Your task to perform on an android device: Search for vegetarian restaurants on Maps Image 0: 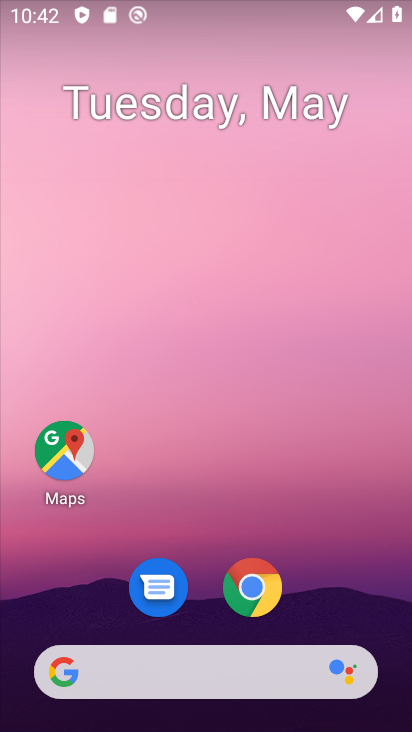
Step 0: drag from (357, 623) to (230, 37)
Your task to perform on an android device: Search for vegetarian restaurants on Maps Image 1: 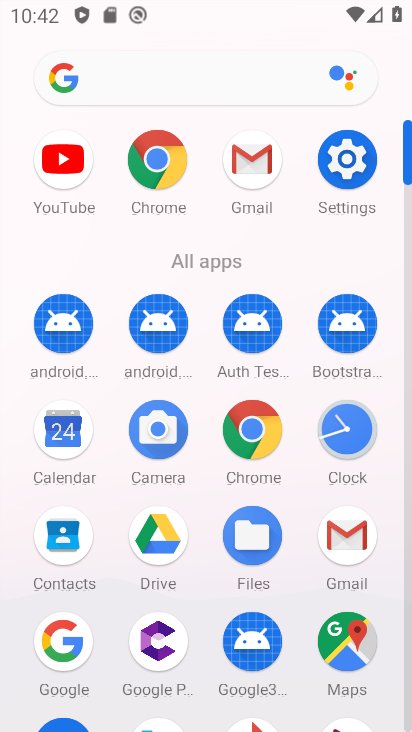
Step 1: drag from (25, 597) to (12, 258)
Your task to perform on an android device: Search for vegetarian restaurants on Maps Image 2: 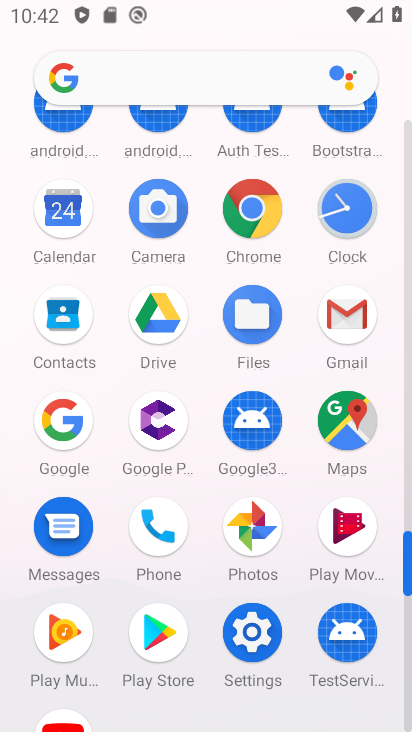
Step 2: click (341, 414)
Your task to perform on an android device: Search for vegetarian restaurants on Maps Image 3: 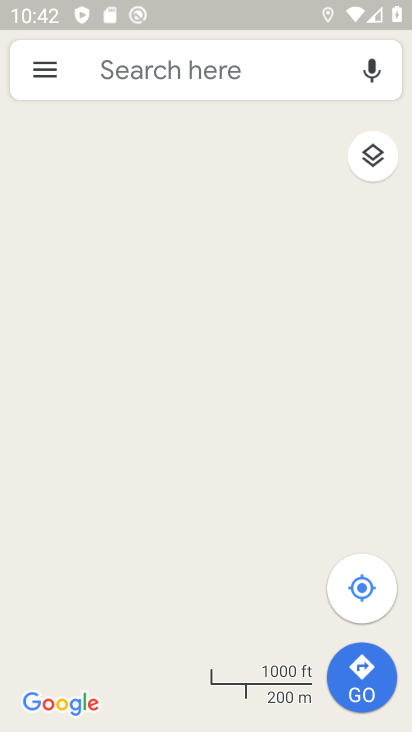
Step 3: click (250, 71)
Your task to perform on an android device: Search for vegetarian restaurants on Maps Image 4: 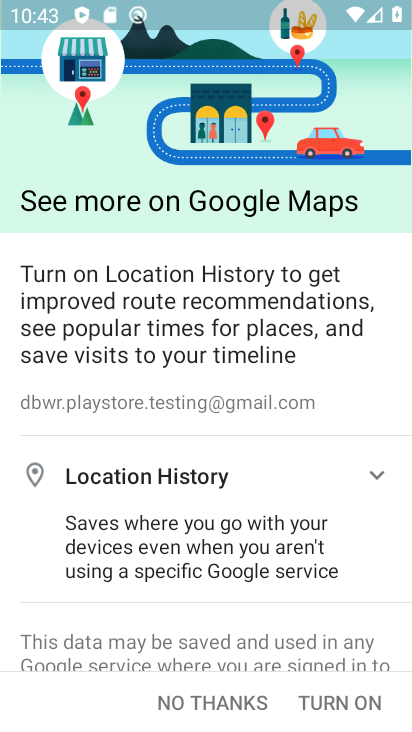
Step 4: click (338, 702)
Your task to perform on an android device: Search for vegetarian restaurants on Maps Image 5: 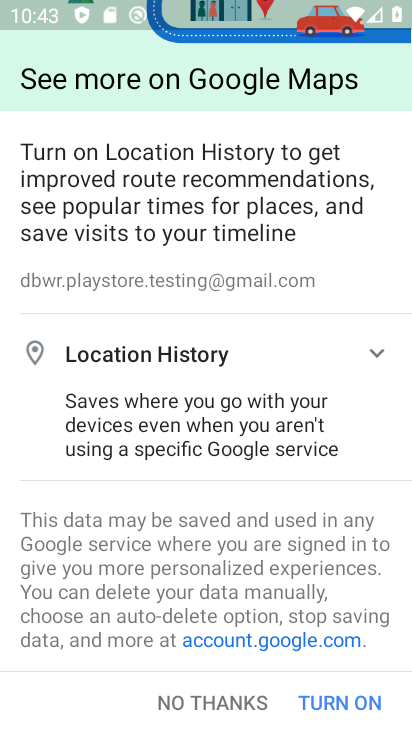
Step 5: click (338, 702)
Your task to perform on an android device: Search for vegetarian restaurants on Maps Image 6: 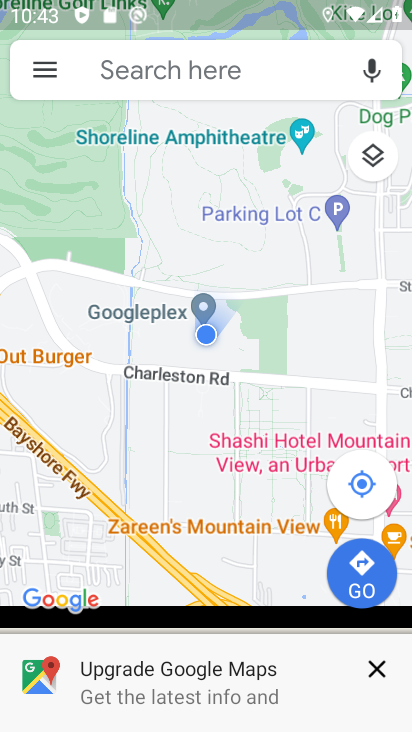
Step 6: click (255, 65)
Your task to perform on an android device: Search for vegetarian restaurants on Maps Image 7: 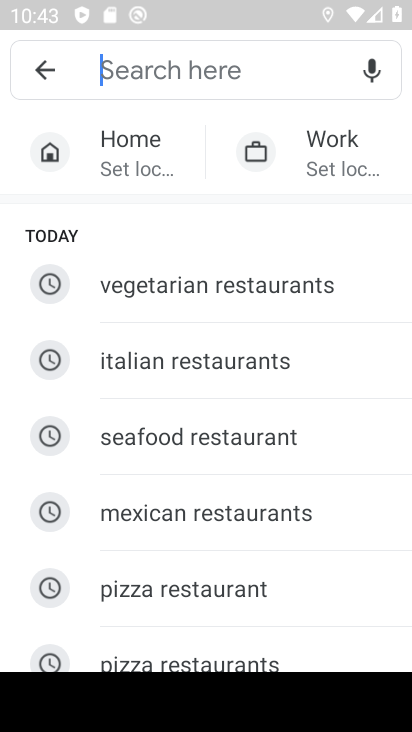
Step 7: click (273, 295)
Your task to perform on an android device: Search for vegetarian restaurants on Maps Image 8: 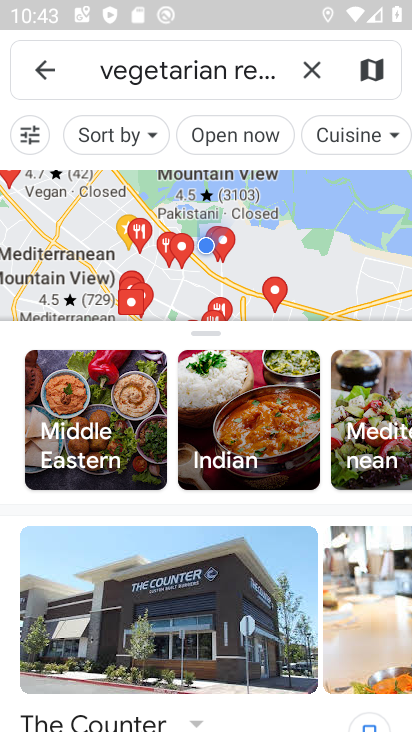
Step 8: task complete